Your task to perform on an android device: Open Reddit.com Image 0: 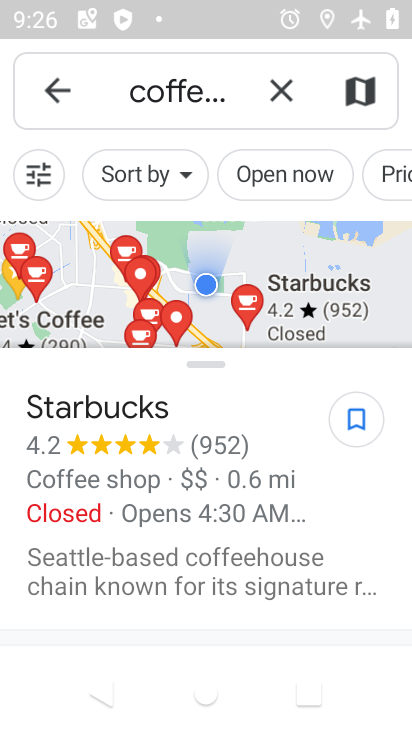
Step 0: press home button
Your task to perform on an android device: Open Reddit.com Image 1: 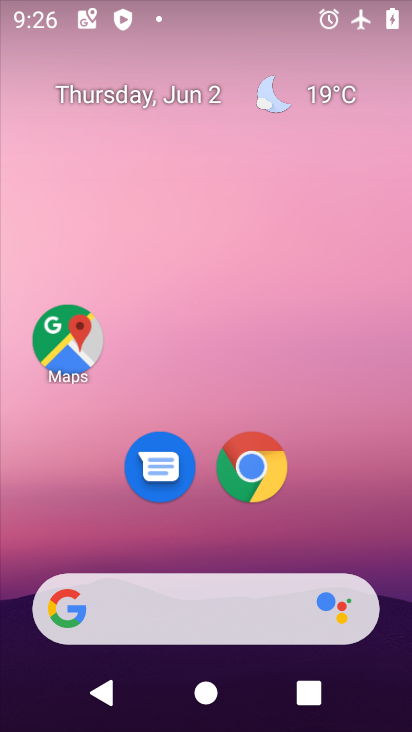
Step 1: click (254, 471)
Your task to perform on an android device: Open Reddit.com Image 2: 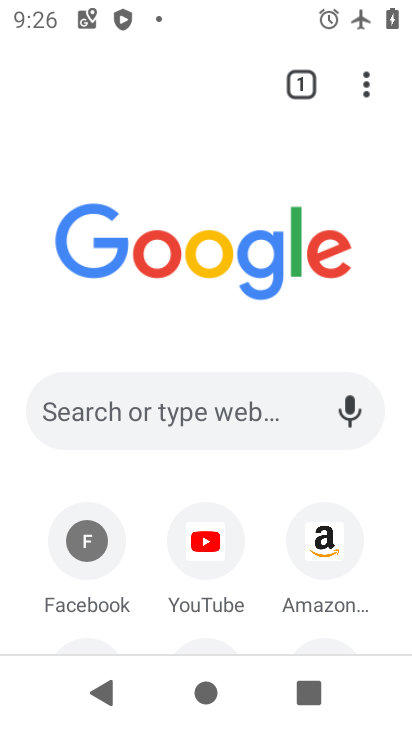
Step 2: drag from (229, 609) to (243, 398)
Your task to perform on an android device: Open Reddit.com Image 3: 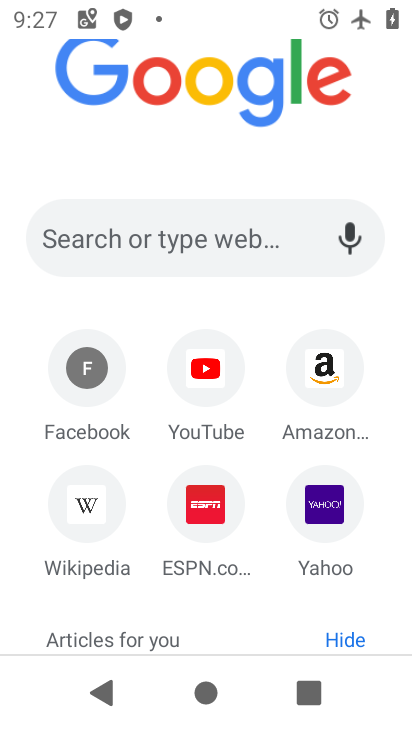
Step 3: click (155, 268)
Your task to perform on an android device: Open Reddit.com Image 4: 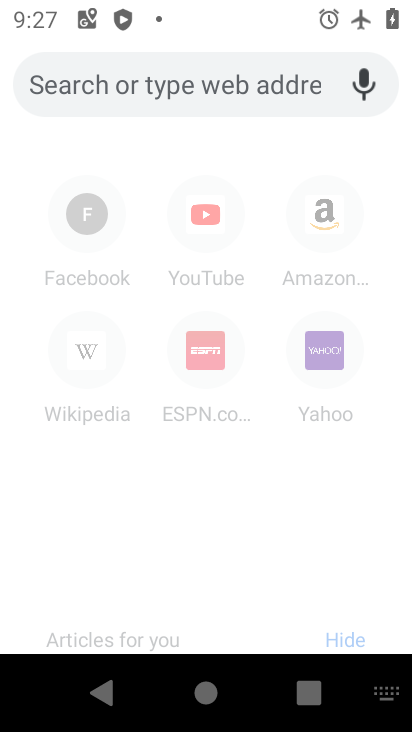
Step 4: type "www.reddit.com"
Your task to perform on an android device: Open Reddit.com Image 5: 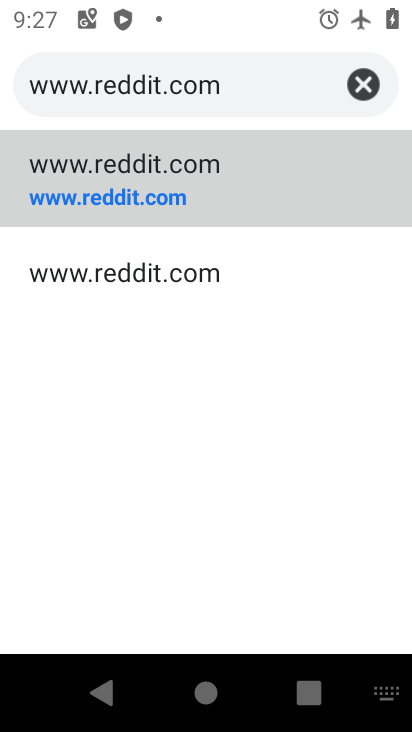
Step 5: click (101, 168)
Your task to perform on an android device: Open Reddit.com Image 6: 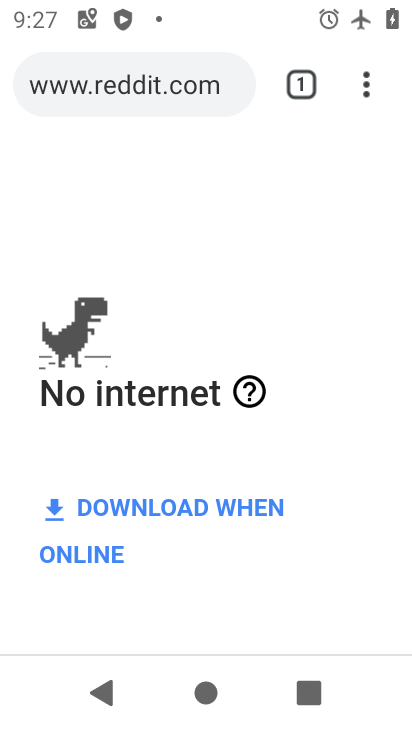
Step 6: press back button
Your task to perform on an android device: Open Reddit.com Image 7: 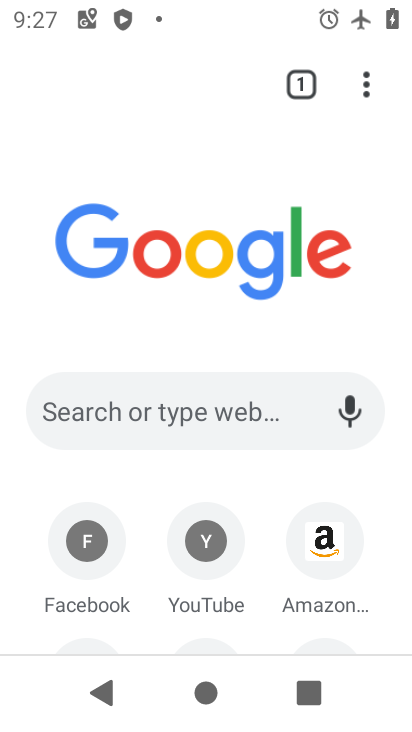
Step 7: press back button
Your task to perform on an android device: Open Reddit.com Image 8: 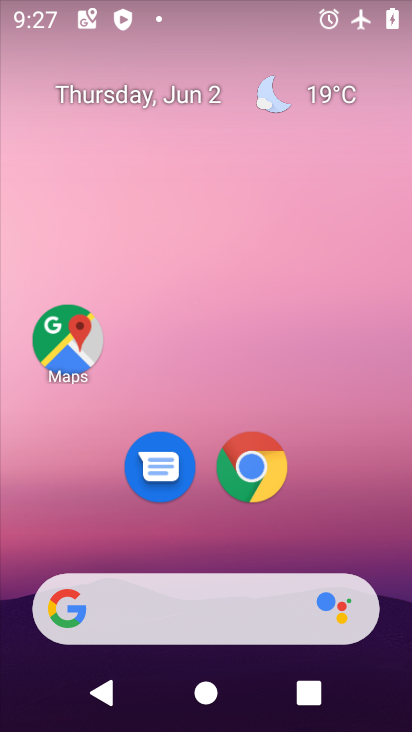
Step 8: drag from (195, 490) to (251, 3)
Your task to perform on an android device: Open Reddit.com Image 9: 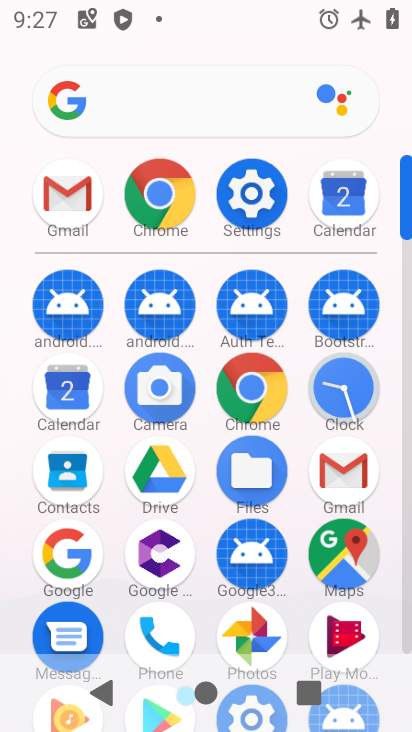
Step 9: click (250, 177)
Your task to perform on an android device: Open Reddit.com Image 10: 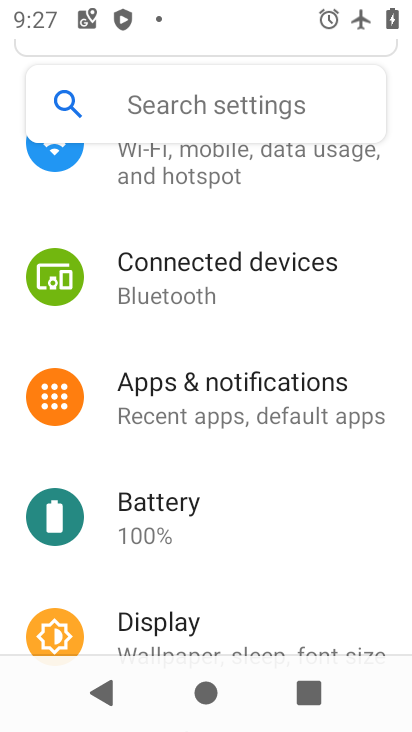
Step 10: drag from (206, 453) to (225, 160)
Your task to perform on an android device: Open Reddit.com Image 11: 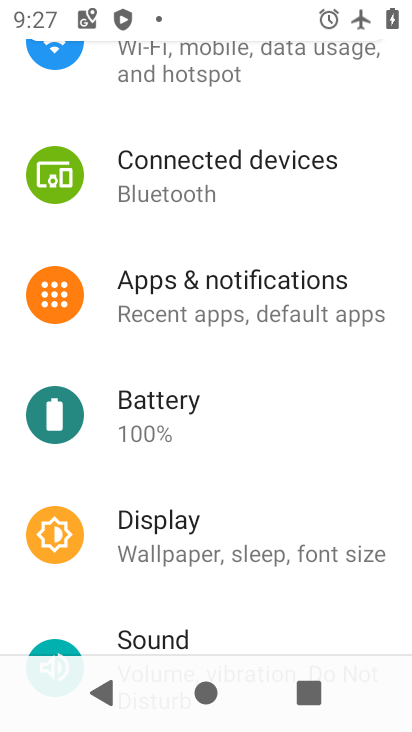
Step 11: drag from (219, 519) to (218, 211)
Your task to perform on an android device: Open Reddit.com Image 12: 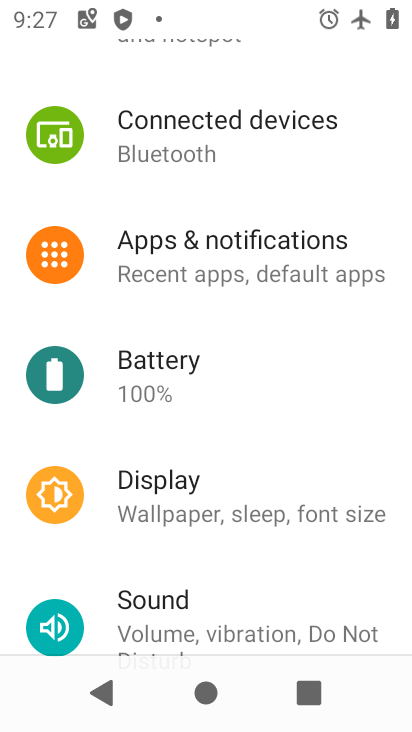
Step 12: drag from (265, 222) to (224, 560)
Your task to perform on an android device: Open Reddit.com Image 13: 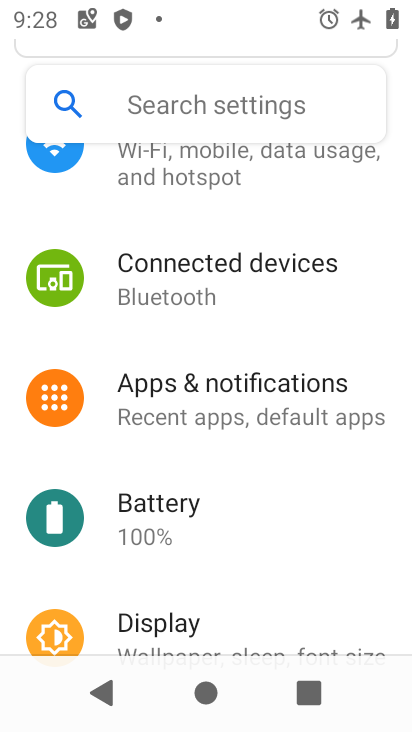
Step 13: click (152, 156)
Your task to perform on an android device: Open Reddit.com Image 14: 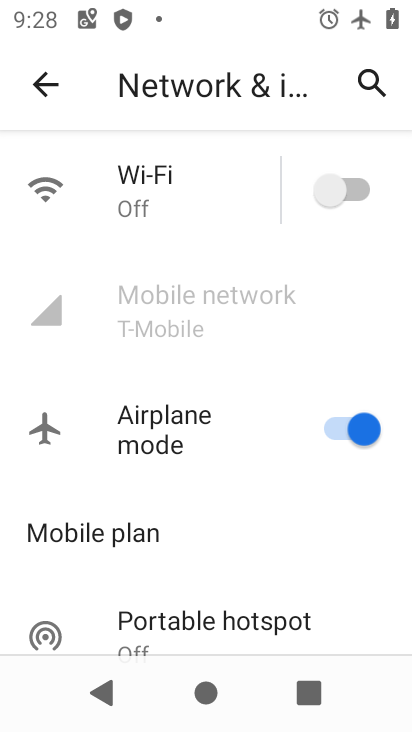
Step 14: click (339, 427)
Your task to perform on an android device: Open Reddit.com Image 15: 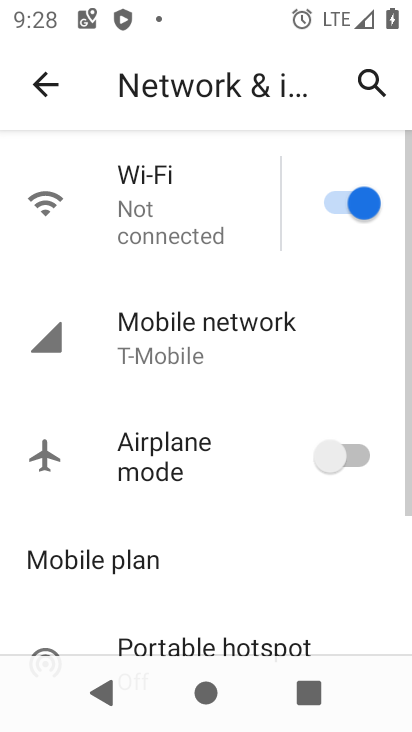
Step 15: press back button
Your task to perform on an android device: Open Reddit.com Image 16: 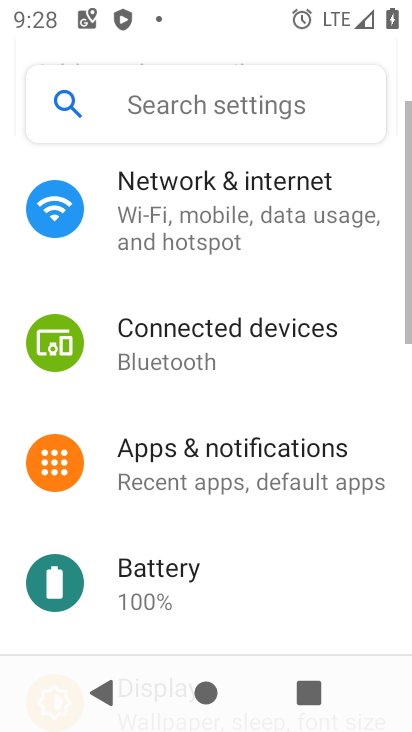
Step 16: press back button
Your task to perform on an android device: Open Reddit.com Image 17: 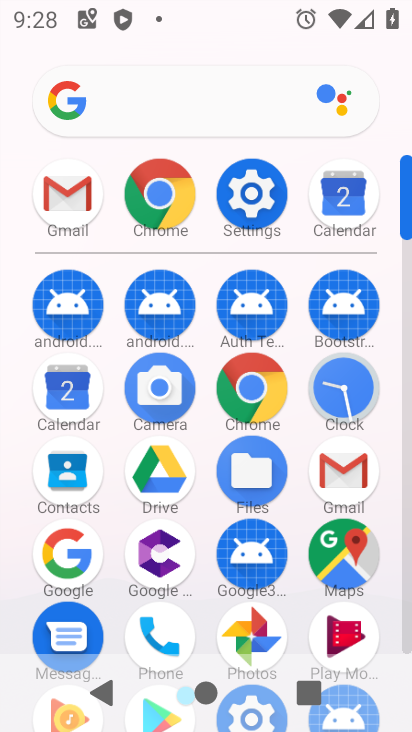
Step 17: click (238, 399)
Your task to perform on an android device: Open Reddit.com Image 18: 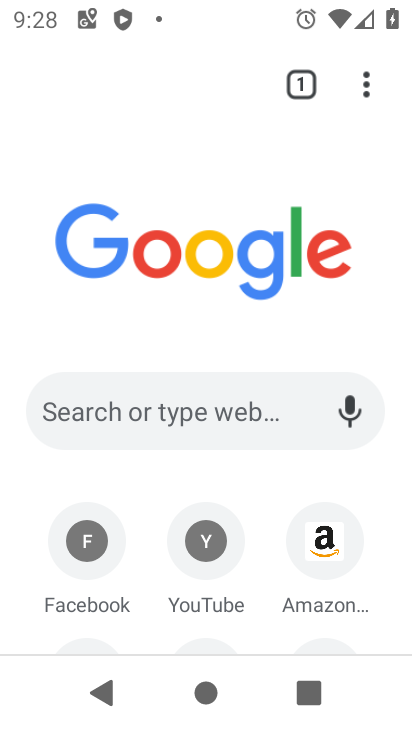
Step 18: click (209, 413)
Your task to perform on an android device: Open Reddit.com Image 19: 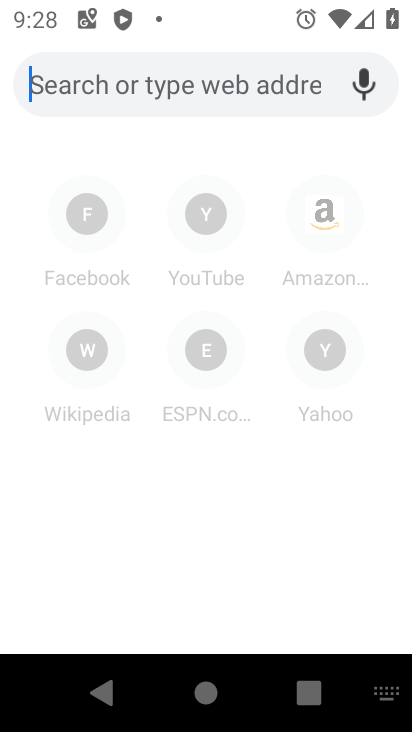
Step 19: click (136, 77)
Your task to perform on an android device: Open Reddit.com Image 20: 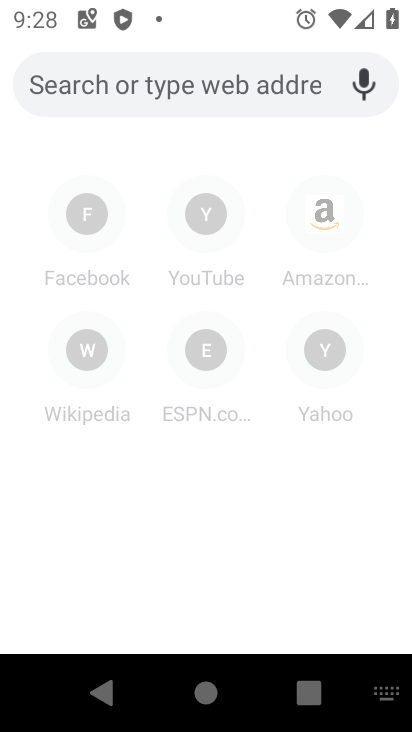
Step 20: click (136, 77)
Your task to perform on an android device: Open Reddit.com Image 21: 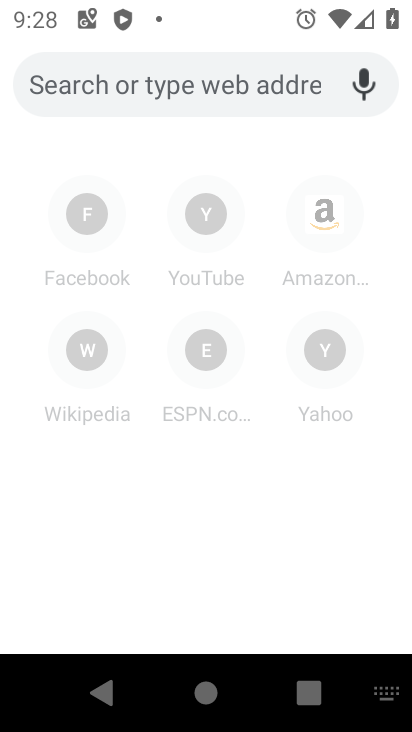
Step 21: type "www.reddit.com"
Your task to perform on an android device: Open Reddit.com Image 22: 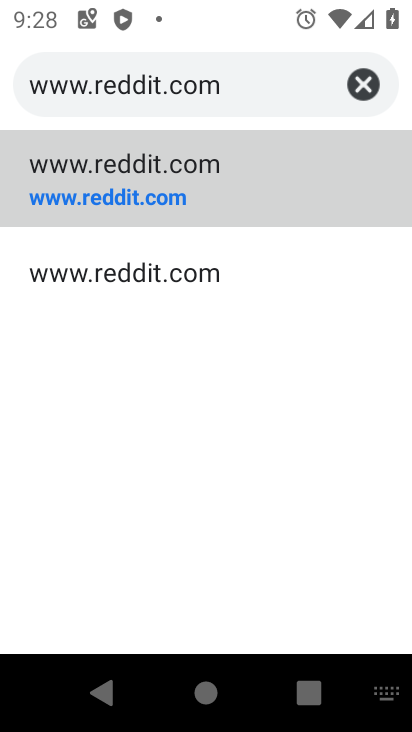
Step 22: click (128, 194)
Your task to perform on an android device: Open Reddit.com Image 23: 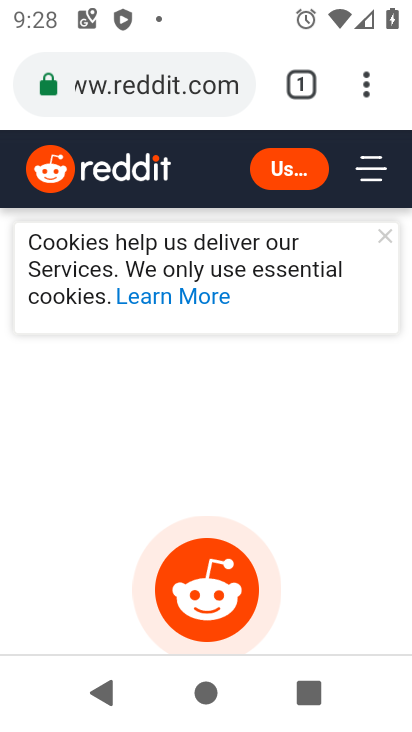
Step 23: task complete